Your task to perform on an android device: Clear the shopping cart on walmart. Add logitech g903 to the cart on walmart, then select checkout. Image 0: 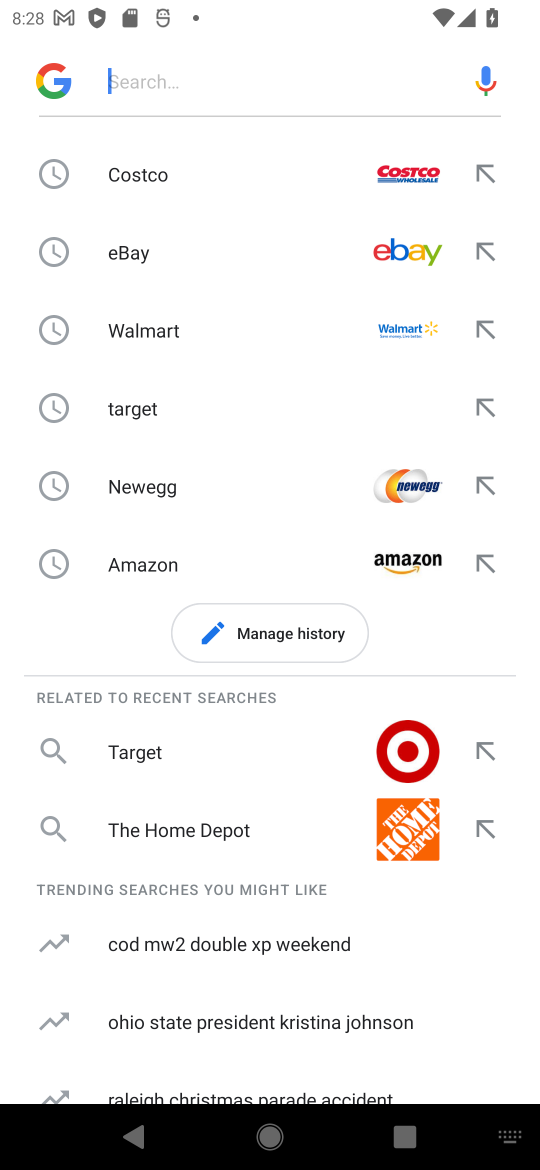
Step 0: press home button
Your task to perform on an android device: Clear the shopping cart on walmart. Add logitech g903 to the cart on walmart, then select checkout. Image 1: 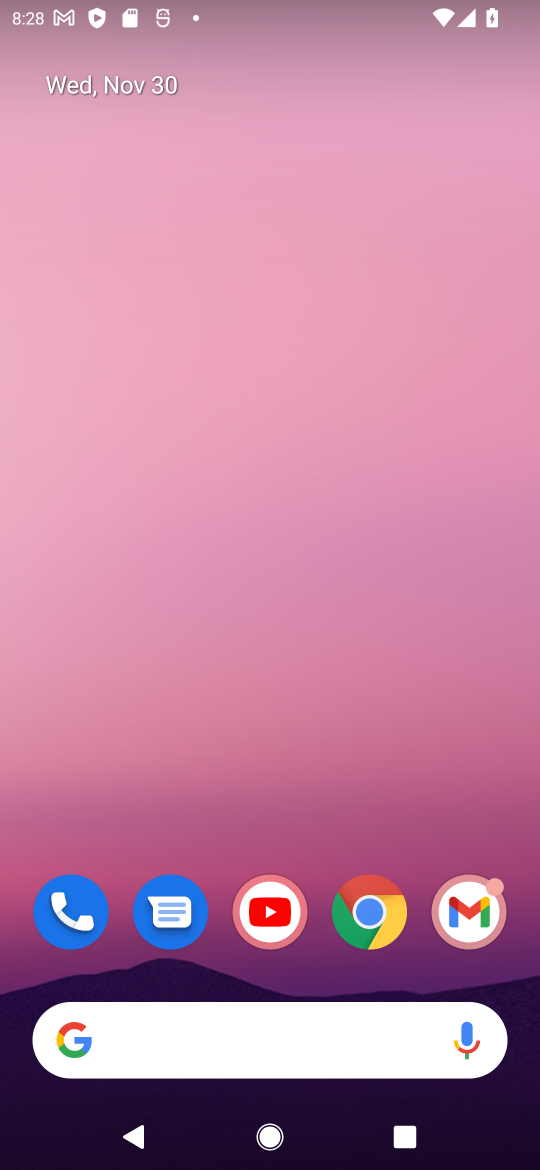
Step 1: click (235, 1052)
Your task to perform on an android device: Clear the shopping cart on walmart. Add logitech g903 to the cart on walmart, then select checkout. Image 2: 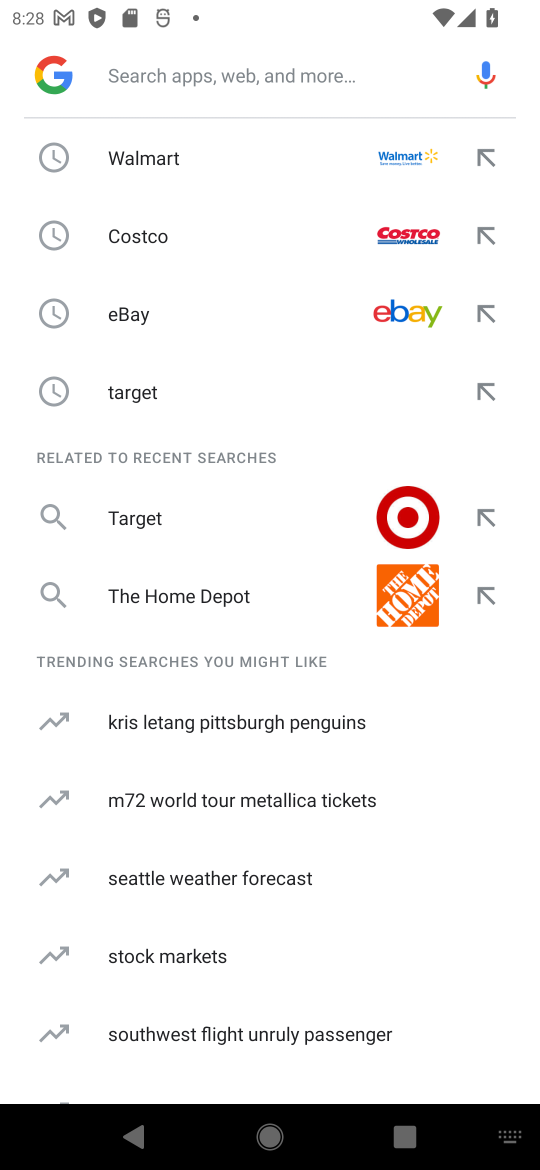
Step 2: click (250, 161)
Your task to perform on an android device: Clear the shopping cart on walmart. Add logitech g903 to the cart on walmart, then select checkout. Image 3: 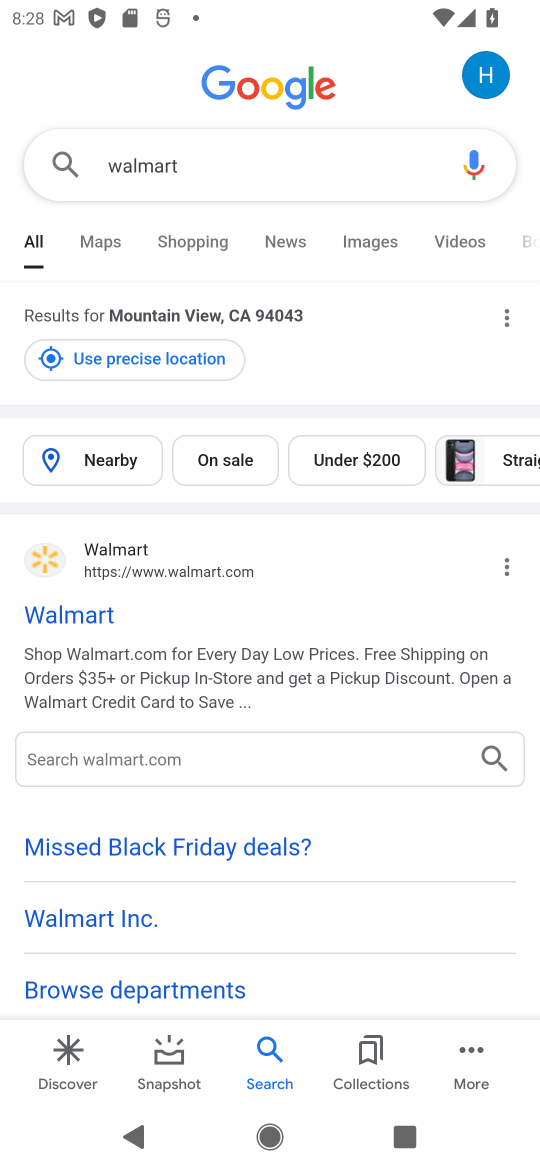
Step 3: click (67, 623)
Your task to perform on an android device: Clear the shopping cart on walmart. Add logitech g903 to the cart on walmart, then select checkout. Image 4: 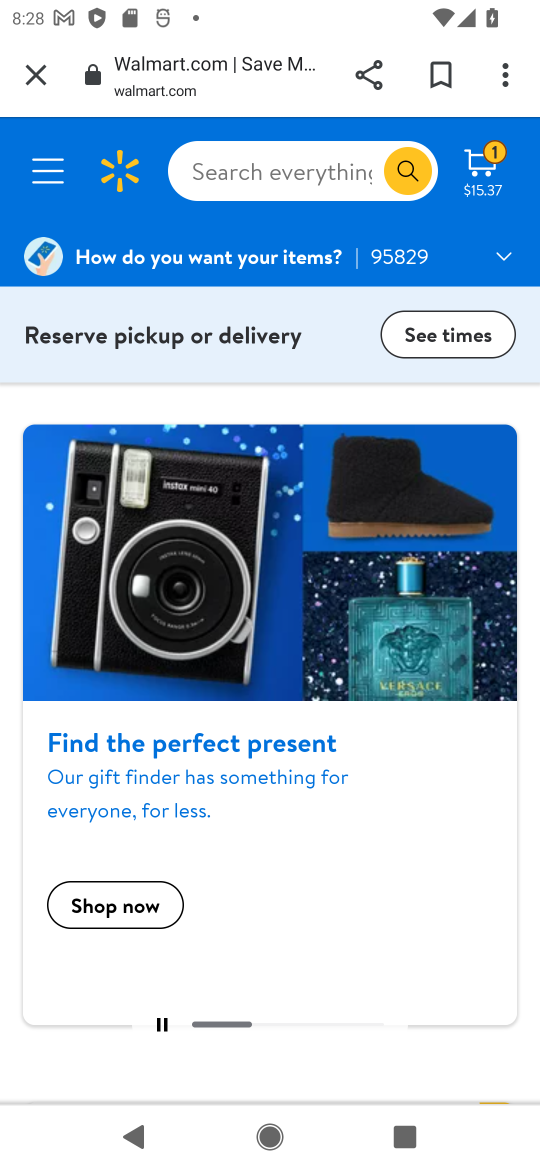
Step 4: click (472, 160)
Your task to perform on an android device: Clear the shopping cart on walmart. Add logitech g903 to the cart on walmart, then select checkout. Image 5: 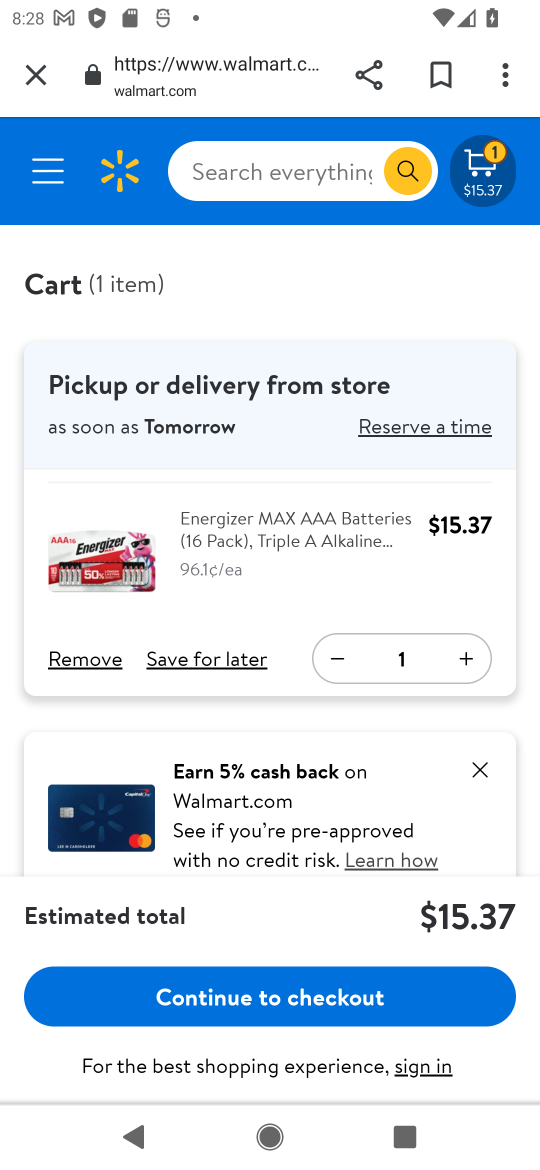
Step 5: click (75, 665)
Your task to perform on an android device: Clear the shopping cart on walmart. Add logitech g903 to the cart on walmart, then select checkout. Image 6: 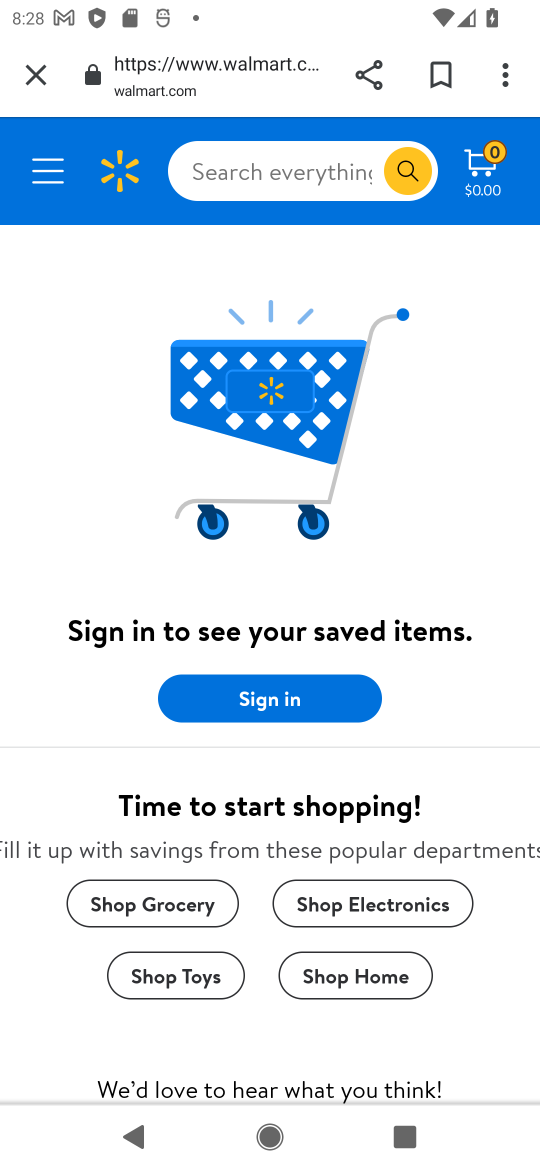
Step 6: click (327, 158)
Your task to perform on an android device: Clear the shopping cart on walmart. Add logitech g903 to the cart on walmart, then select checkout. Image 7: 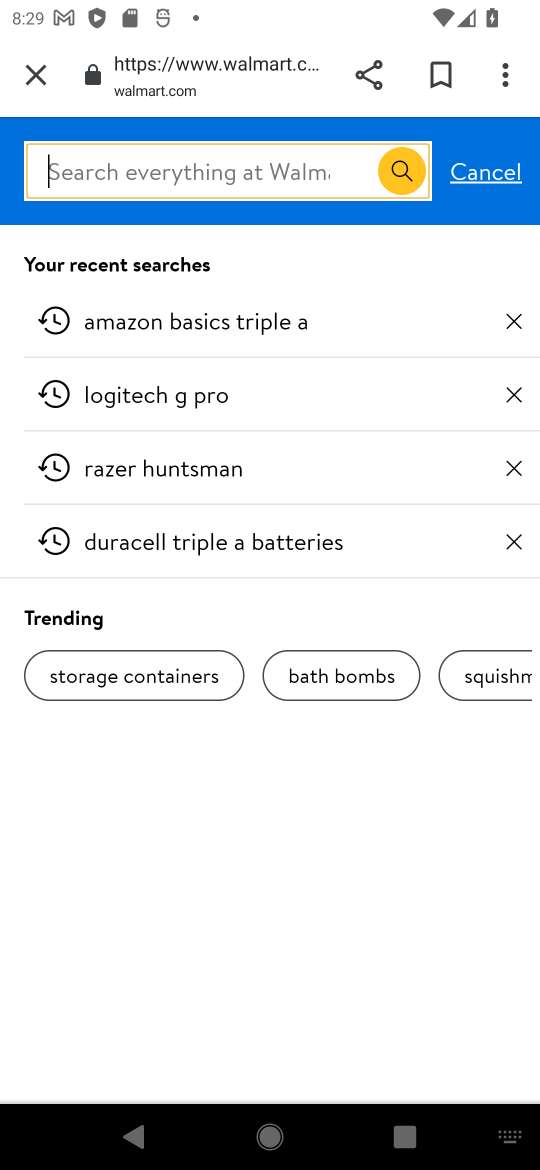
Step 7: type " logitech g903 "
Your task to perform on an android device: Clear the shopping cart on walmart. Add logitech g903 to the cart on walmart, then select checkout. Image 8: 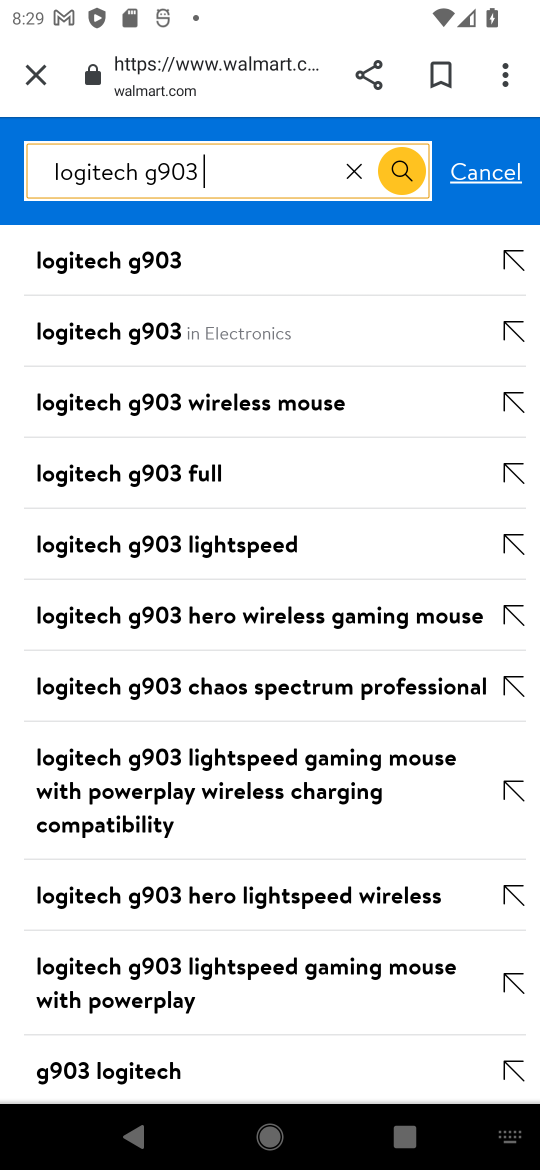
Step 8: click (151, 275)
Your task to perform on an android device: Clear the shopping cart on walmart. Add logitech g903 to the cart on walmart, then select checkout. Image 9: 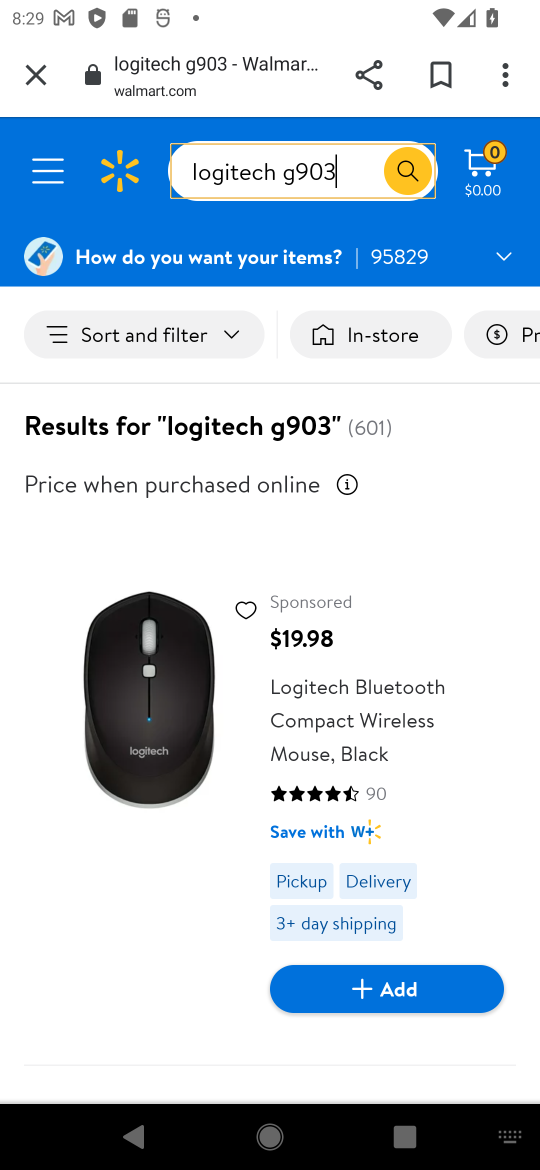
Step 9: click (353, 992)
Your task to perform on an android device: Clear the shopping cart on walmart. Add logitech g903 to the cart on walmart, then select checkout. Image 10: 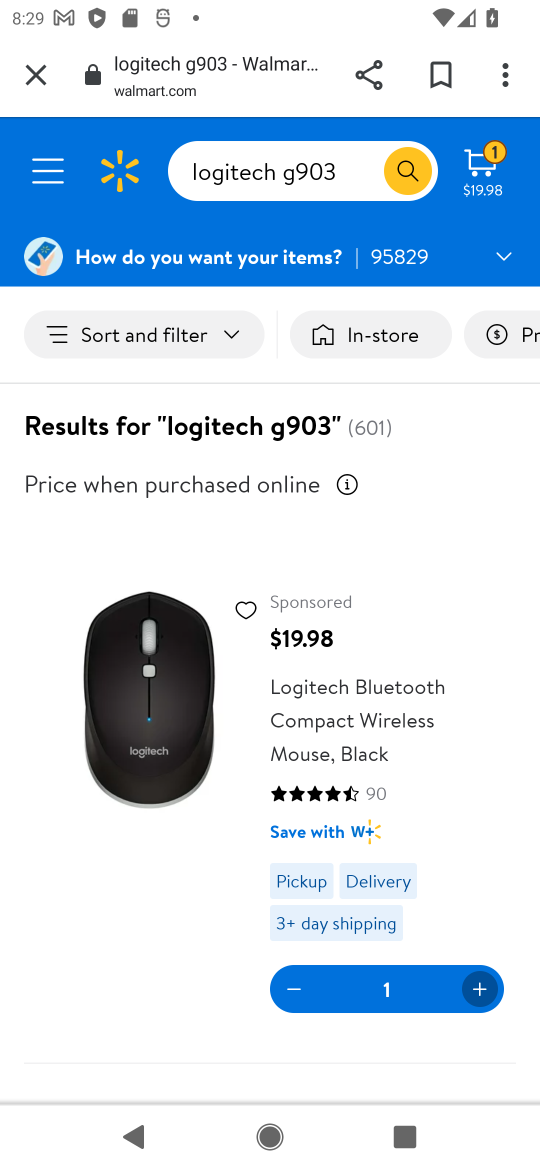
Step 10: click (475, 177)
Your task to perform on an android device: Clear the shopping cart on walmart. Add logitech g903 to the cart on walmart, then select checkout. Image 11: 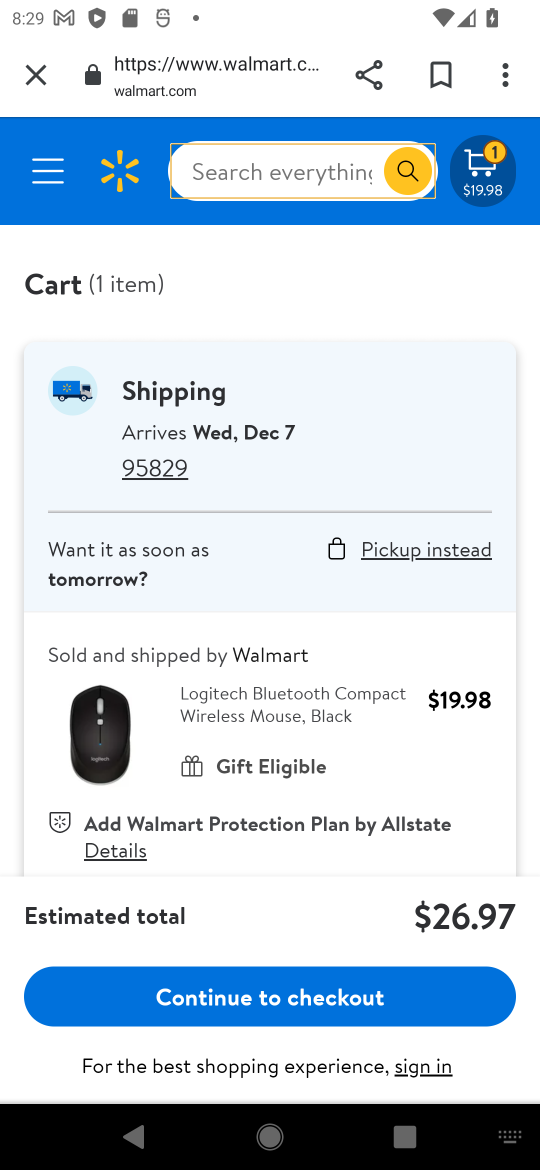
Step 11: click (290, 1004)
Your task to perform on an android device: Clear the shopping cart on walmart. Add logitech g903 to the cart on walmart, then select checkout. Image 12: 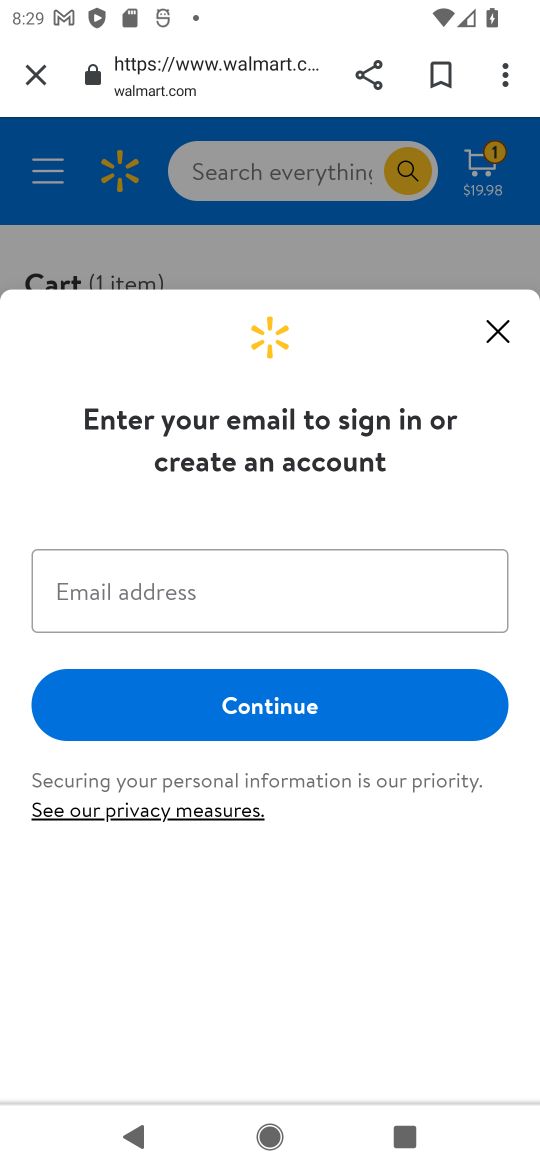
Step 12: task complete